Your task to perform on an android device: turn on priority inbox in the gmail app Image 0: 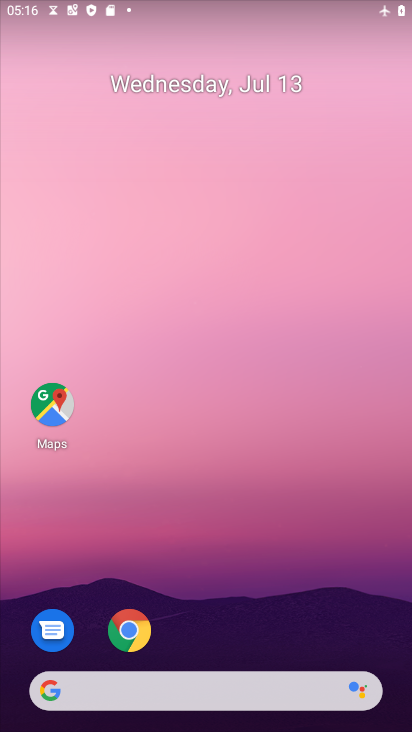
Step 0: drag from (345, 672) to (390, 5)
Your task to perform on an android device: turn on priority inbox in the gmail app Image 1: 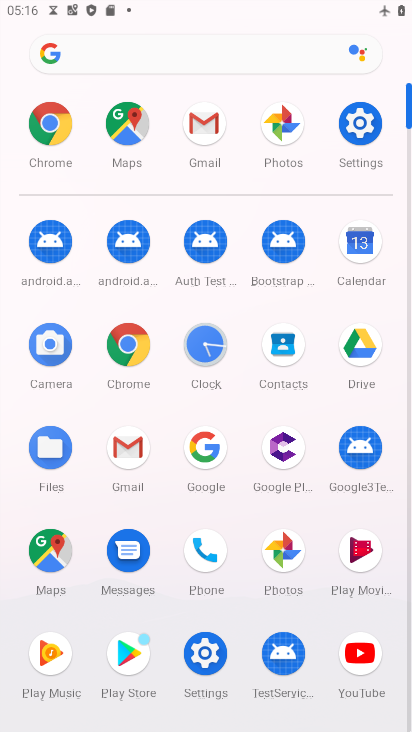
Step 1: click (140, 448)
Your task to perform on an android device: turn on priority inbox in the gmail app Image 2: 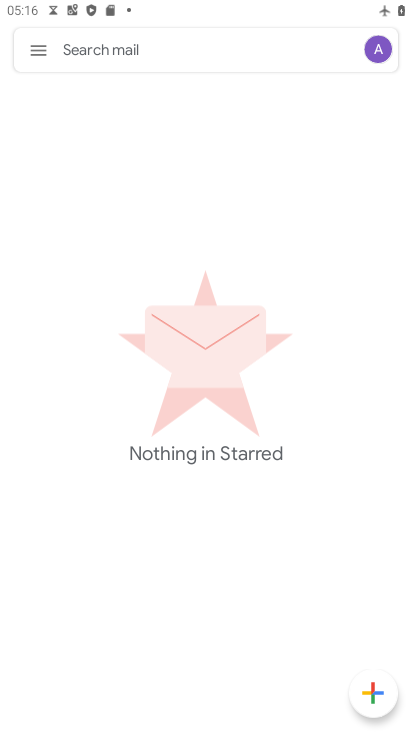
Step 2: click (48, 46)
Your task to perform on an android device: turn on priority inbox in the gmail app Image 3: 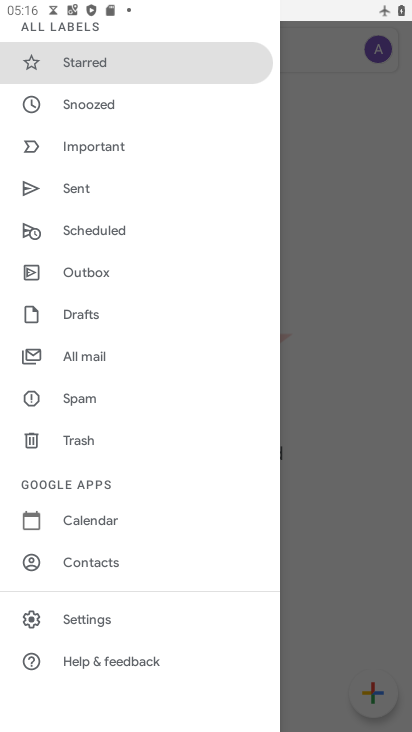
Step 3: click (90, 608)
Your task to perform on an android device: turn on priority inbox in the gmail app Image 4: 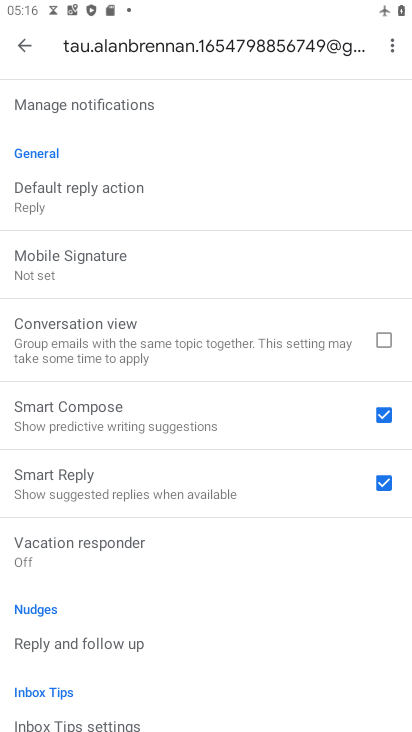
Step 4: drag from (108, 198) to (177, 728)
Your task to perform on an android device: turn on priority inbox in the gmail app Image 5: 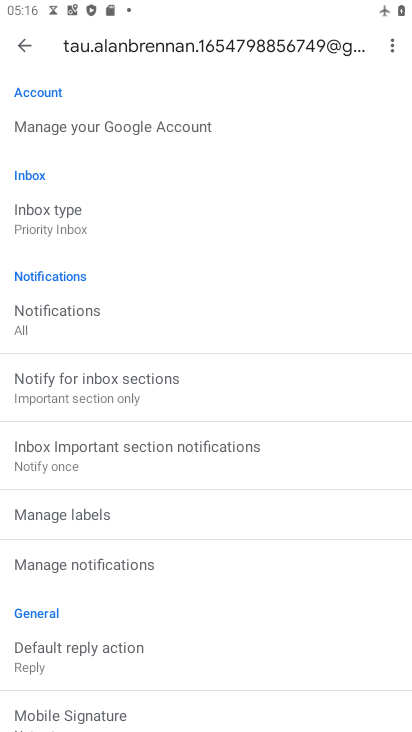
Step 5: click (92, 225)
Your task to perform on an android device: turn on priority inbox in the gmail app Image 6: 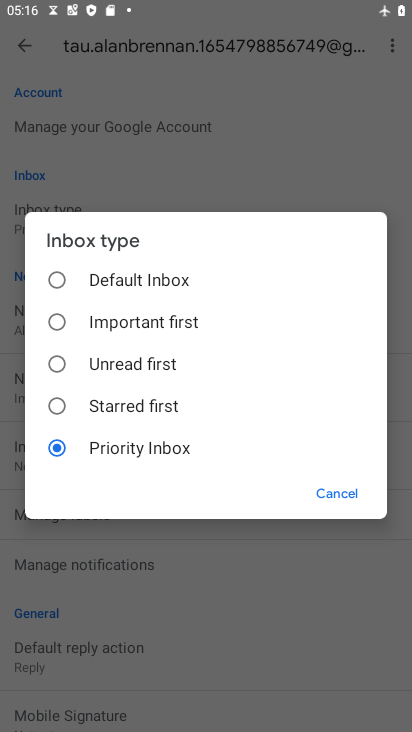
Step 6: task complete